Your task to perform on an android device: What's the weather today? Image 0: 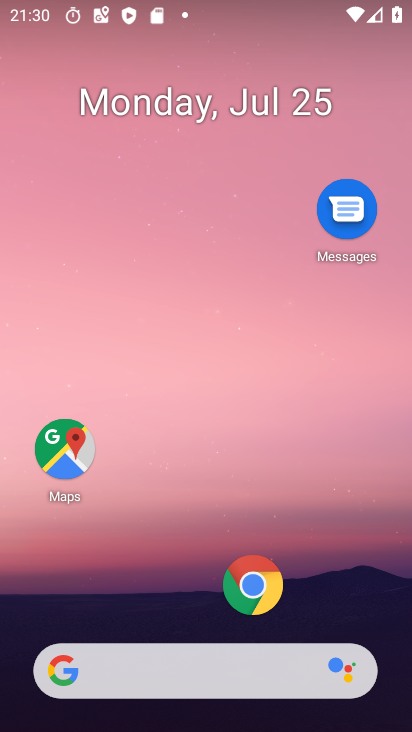
Step 0: click (151, 674)
Your task to perform on an android device: What's the weather today? Image 1: 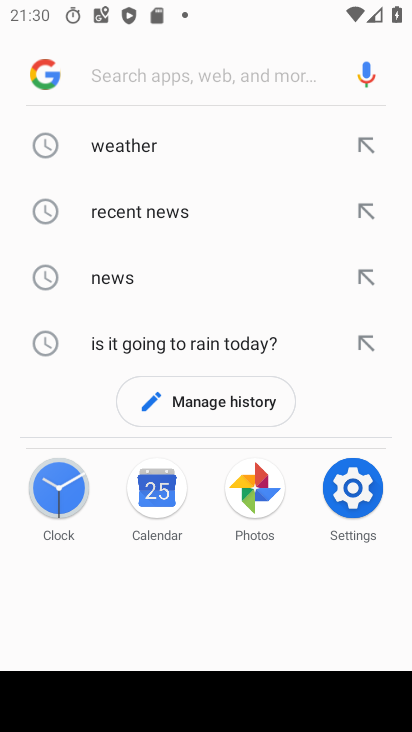
Step 1: click (131, 148)
Your task to perform on an android device: What's the weather today? Image 2: 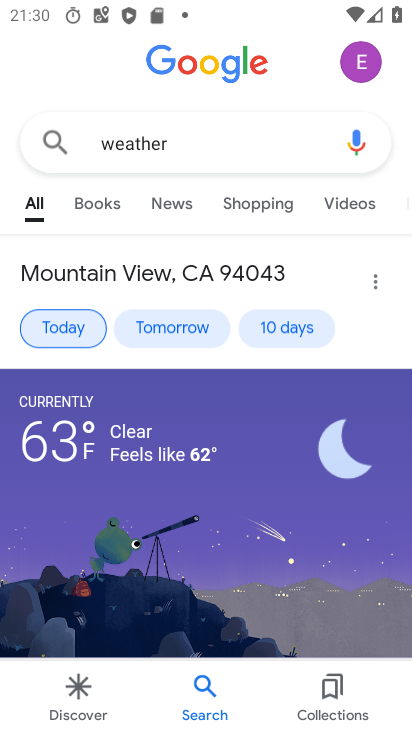
Step 2: task complete